Your task to perform on an android device: turn off sleep mode Image 0: 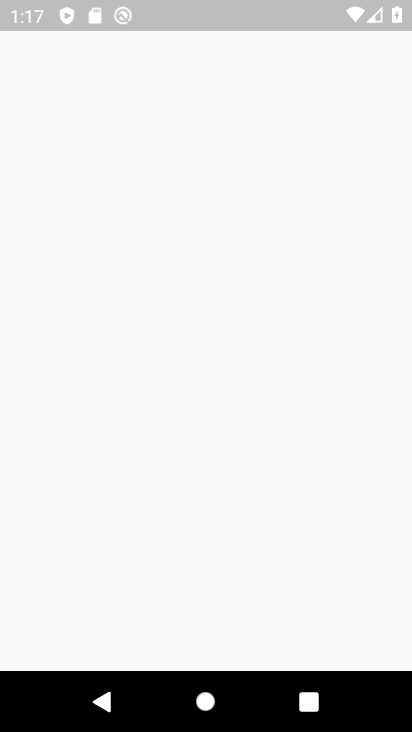
Step 0: press home button
Your task to perform on an android device: turn off sleep mode Image 1: 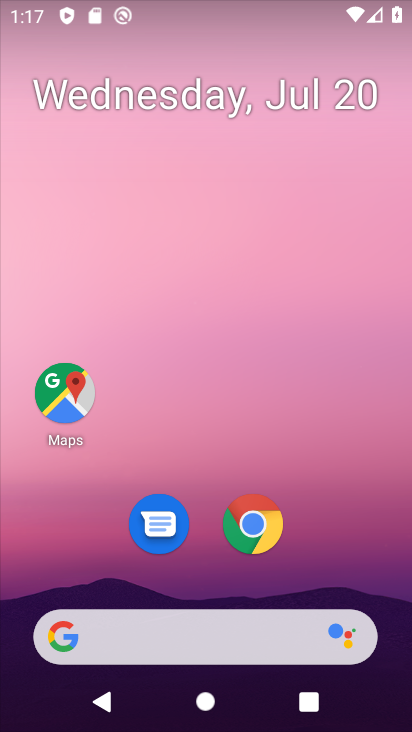
Step 1: drag from (316, 561) to (321, 20)
Your task to perform on an android device: turn off sleep mode Image 2: 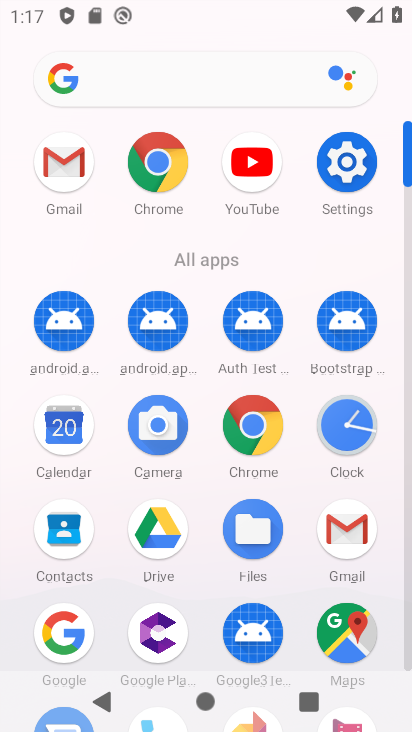
Step 2: click (339, 169)
Your task to perform on an android device: turn off sleep mode Image 3: 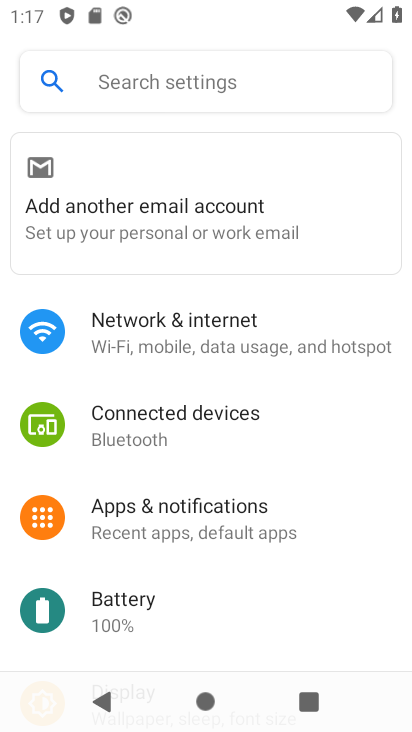
Step 3: drag from (182, 610) to (202, 166)
Your task to perform on an android device: turn off sleep mode Image 4: 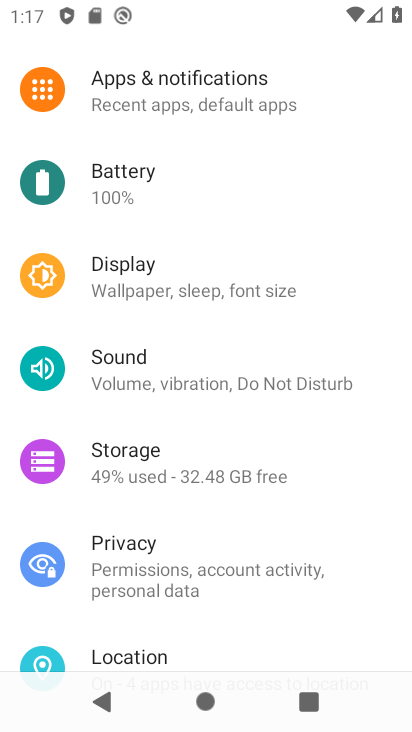
Step 4: click (216, 280)
Your task to perform on an android device: turn off sleep mode Image 5: 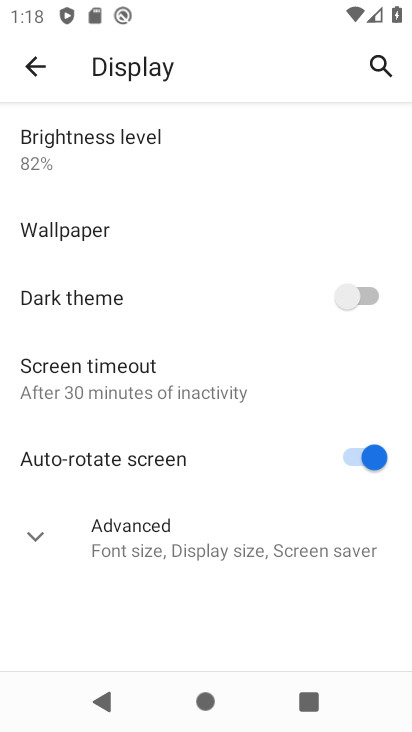
Step 5: click (38, 539)
Your task to perform on an android device: turn off sleep mode Image 6: 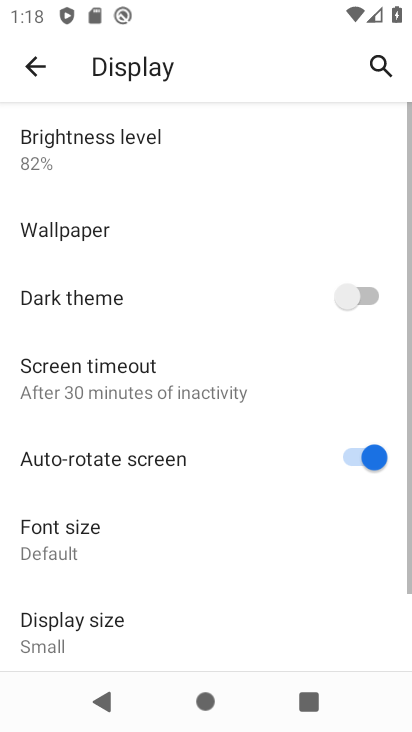
Step 6: task complete